Your task to perform on an android device: check out phone information Image 0: 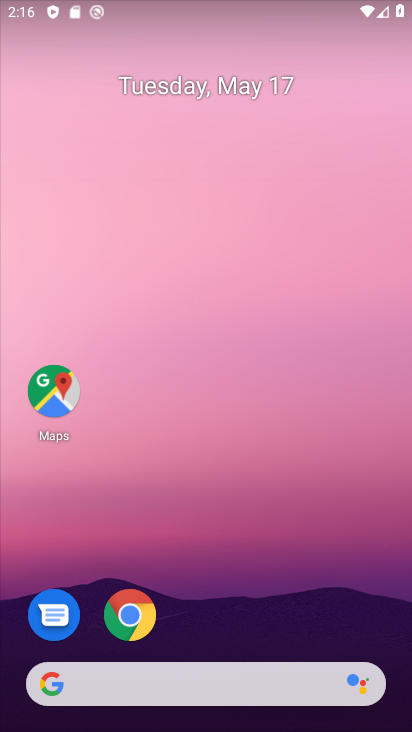
Step 0: drag from (228, 689) to (235, 138)
Your task to perform on an android device: check out phone information Image 1: 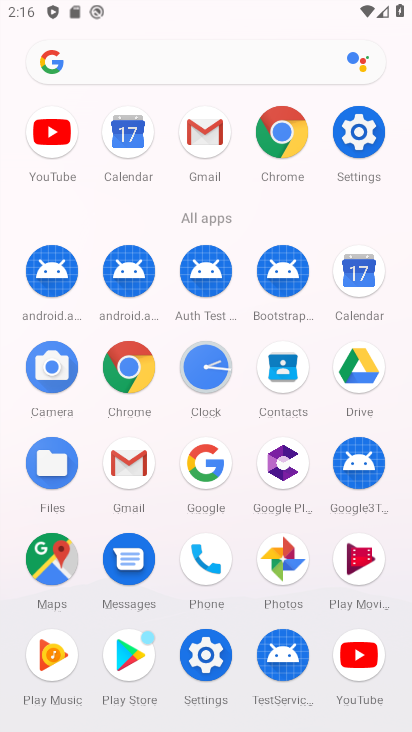
Step 1: click (366, 135)
Your task to perform on an android device: check out phone information Image 2: 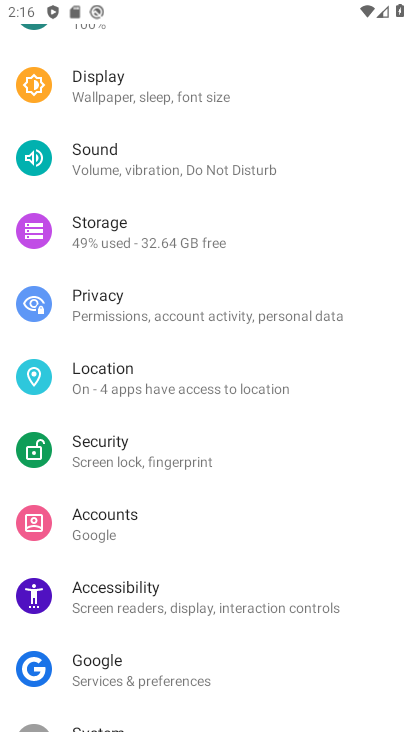
Step 2: drag from (198, 577) to (209, 213)
Your task to perform on an android device: check out phone information Image 3: 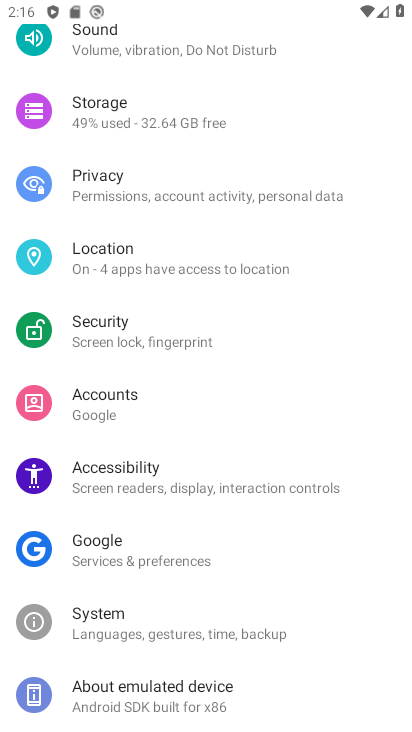
Step 3: drag from (155, 645) to (172, 277)
Your task to perform on an android device: check out phone information Image 4: 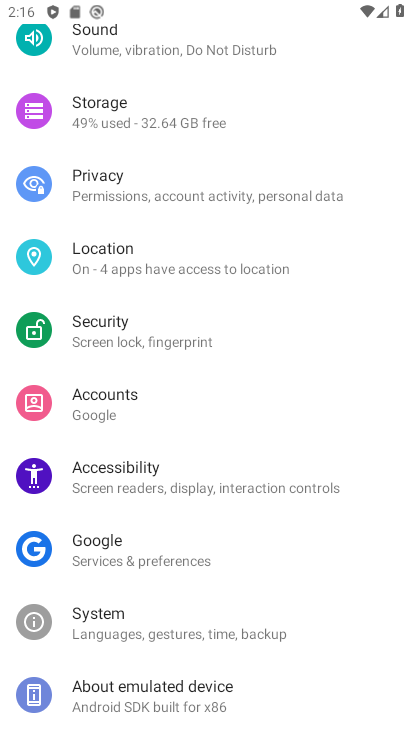
Step 4: click (143, 682)
Your task to perform on an android device: check out phone information Image 5: 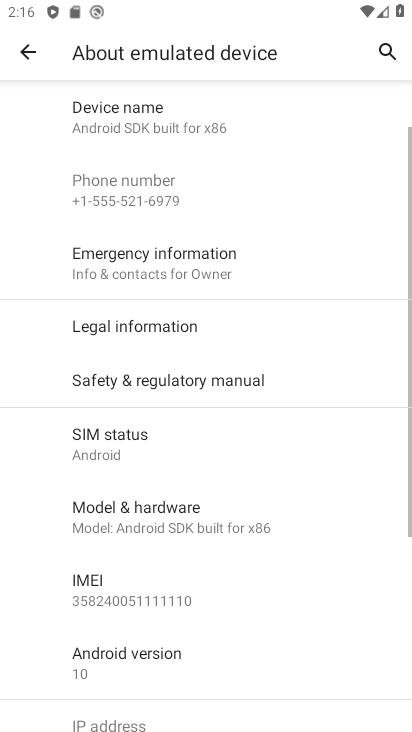
Step 5: task complete